Your task to perform on an android device: Open settings on Google Maps Image 0: 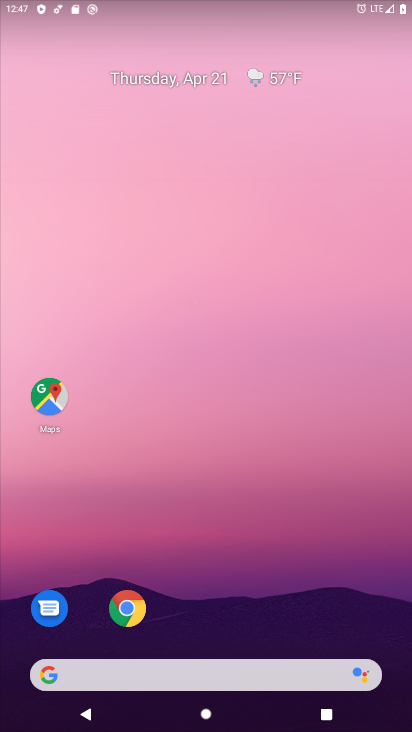
Step 0: click (59, 403)
Your task to perform on an android device: Open settings on Google Maps Image 1: 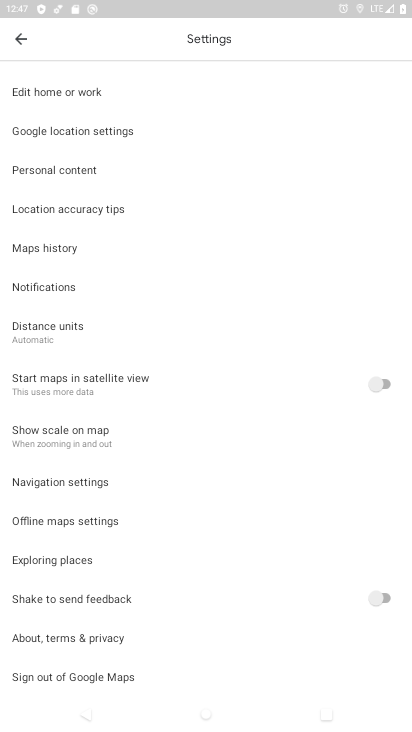
Step 1: task complete